Your task to perform on an android device: change text size in settings app Image 0: 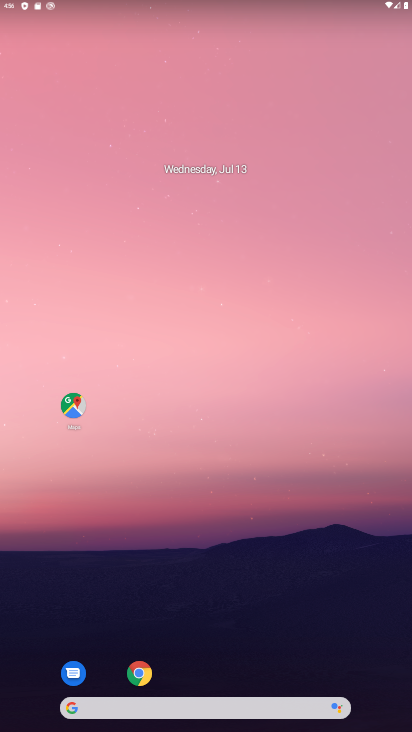
Step 0: drag from (210, 687) to (309, 166)
Your task to perform on an android device: change text size in settings app Image 1: 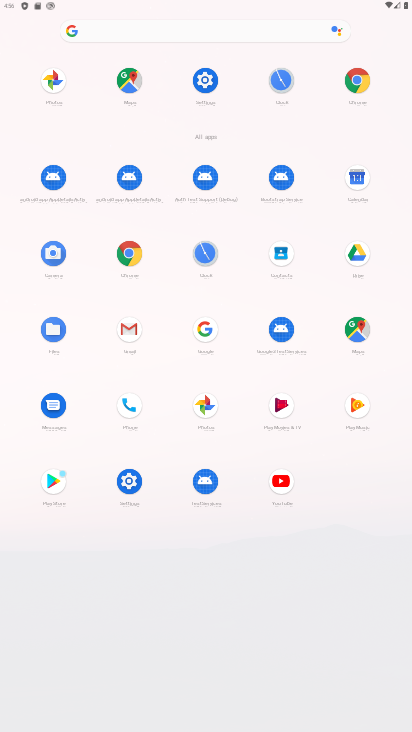
Step 1: click (144, 484)
Your task to perform on an android device: change text size in settings app Image 2: 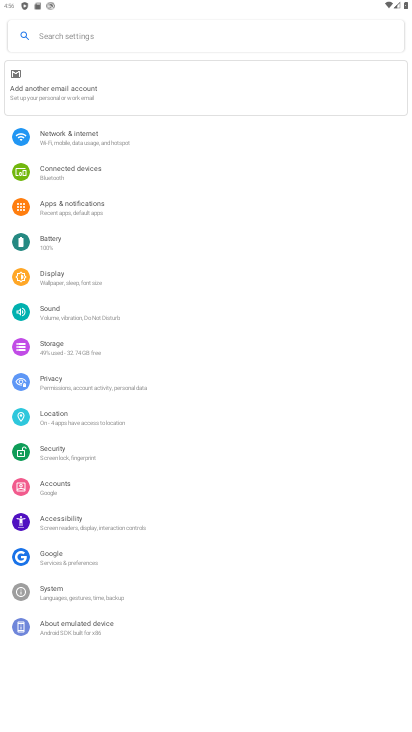
Step 2: click (79, 282)
Your task to perform on an android device: change text size in settings app Image 3: 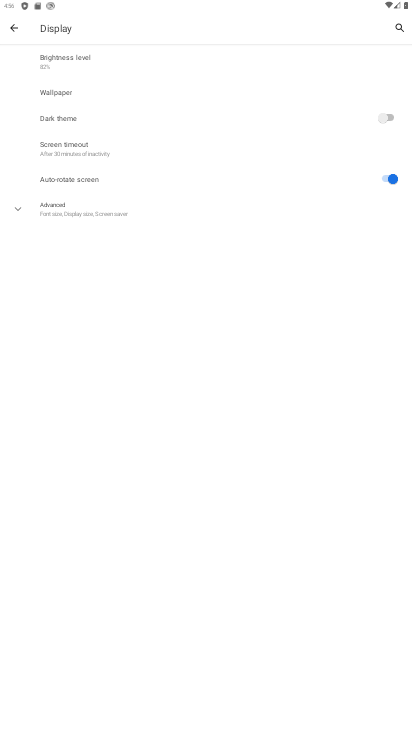
Step 3: click (76, 212)
Your task to perform on an android device: change text size in settings app Image 4: 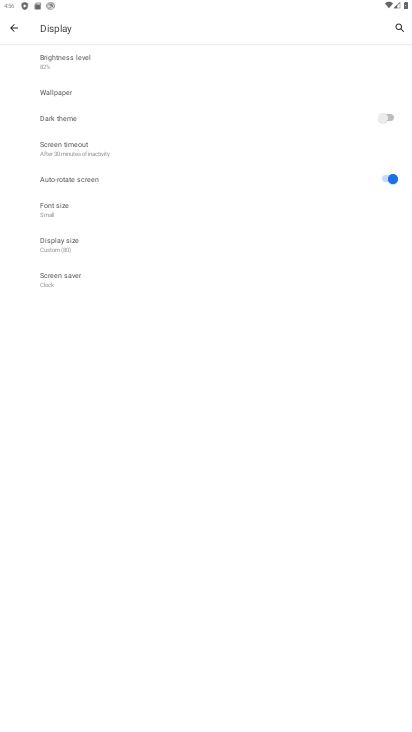
Step 4: click (80, 212)
Your task to perform on an android device: change text size in settings app Image 5: 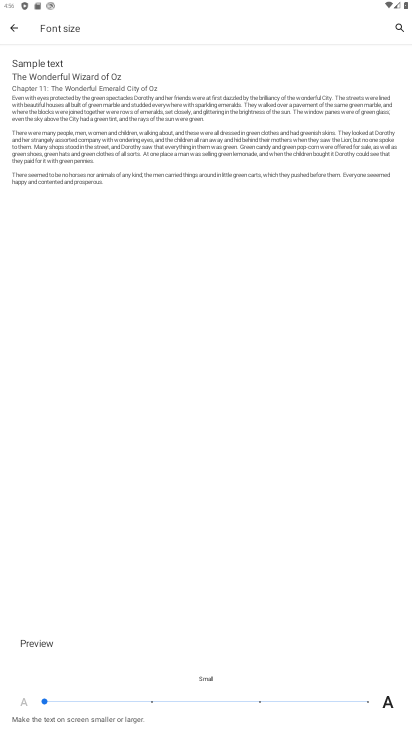
Step 5: click (151, 703)
Your task to perform on an android device: change text size in settings app Image 6: 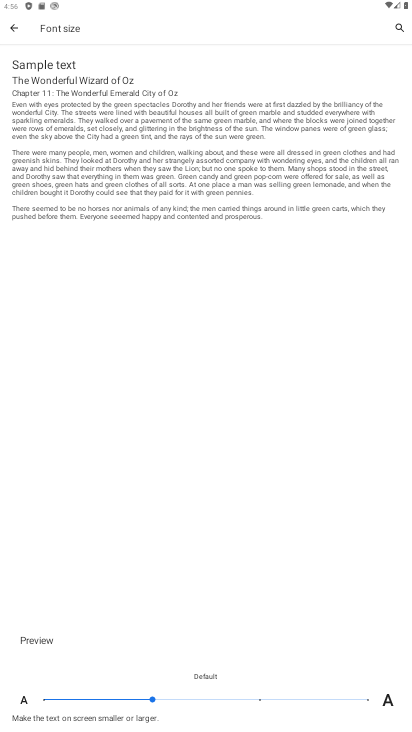
Step 6: click (250, 700)
Your task to perform on an android device: change text size in settings app Image 7: 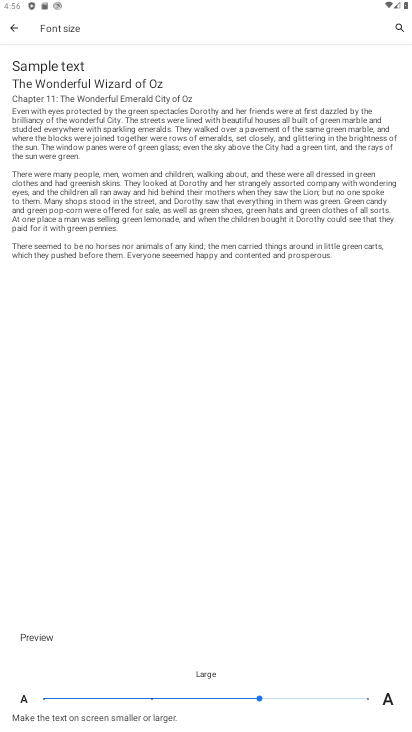
Step 7: task complete